Your task to perform on an android device: turn off picture-in-picture Image 0: 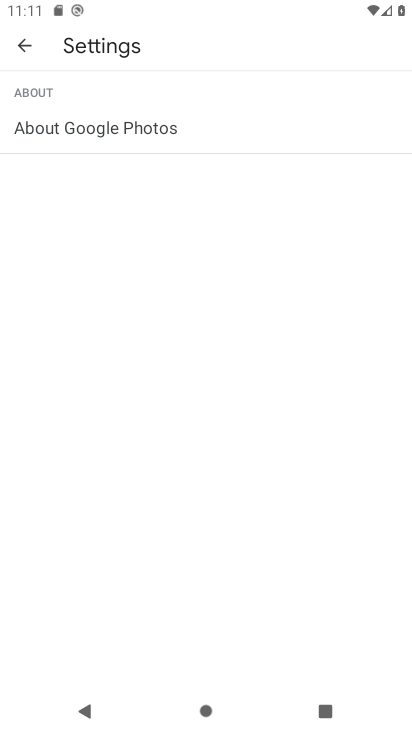
Step 0: press home button
Your task to perform on an android device: turn off picture-in-picture Image 1: 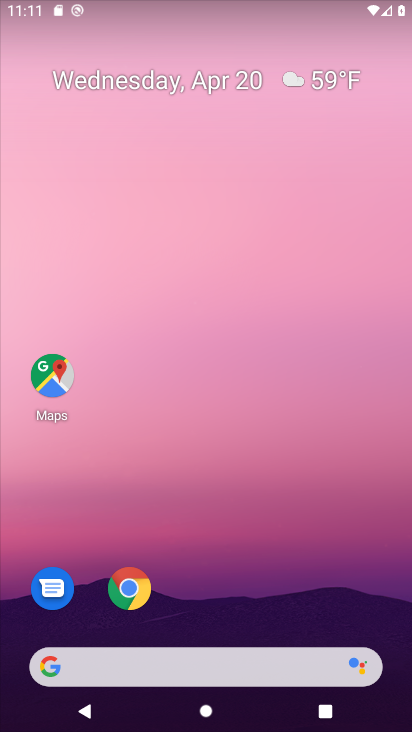
Step 1: drag from (342, 610) to (304, 246)
Your task to perform on an android device: turn off picture-in-picture Image 2: 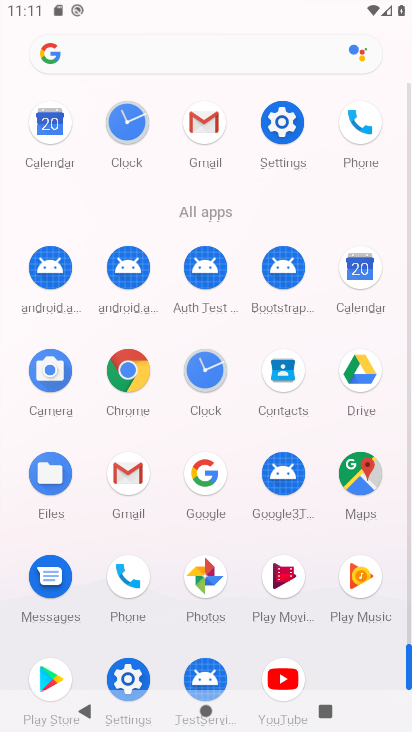
Step 2: click (125, 670)
Your task to perform on an android device: turn off picture-in-picture Image 3: 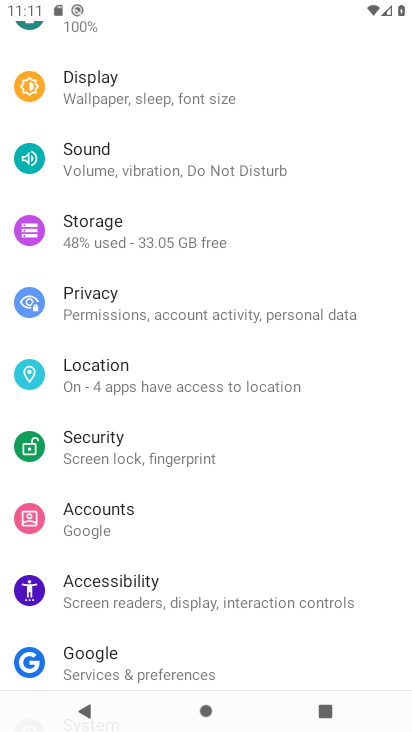
Step 3: drag from (338, 301) to (294, 494)
Your task to perform on an android device: turn off picture-in-picture Image 4: 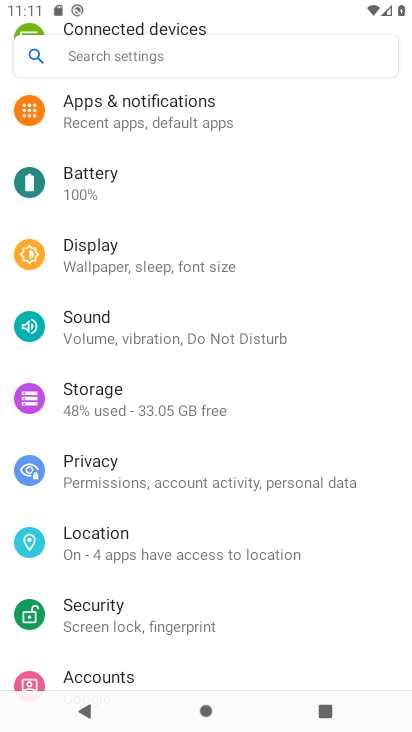
Step 4: drag from (323, 193) to (304, 379)
Your task to perform on an android device: turn off picture-in-picture Image 5: 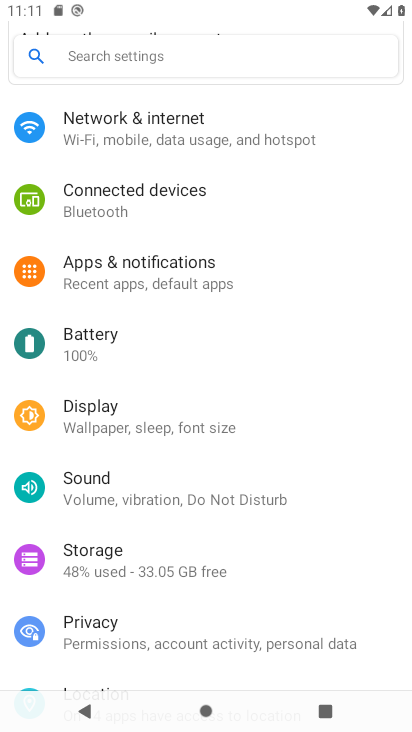
Step 5: click (135, 262)
Your task to perform on an android device: turn off picture-in-picture Image 6: 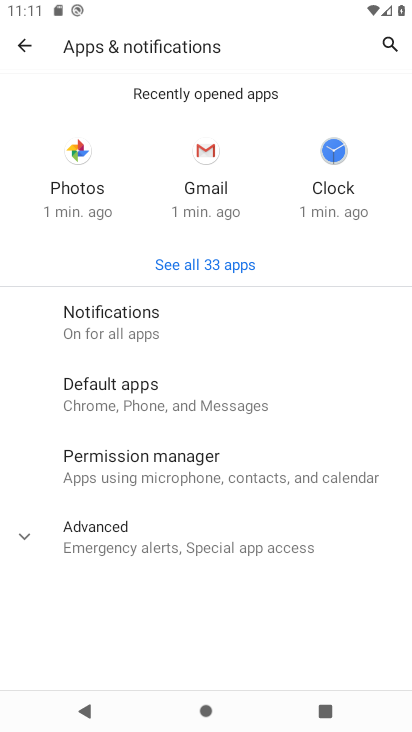
Step 6: click (21, 529)
Your task to perform on an android device: turn off picture-in-picture Image 7: 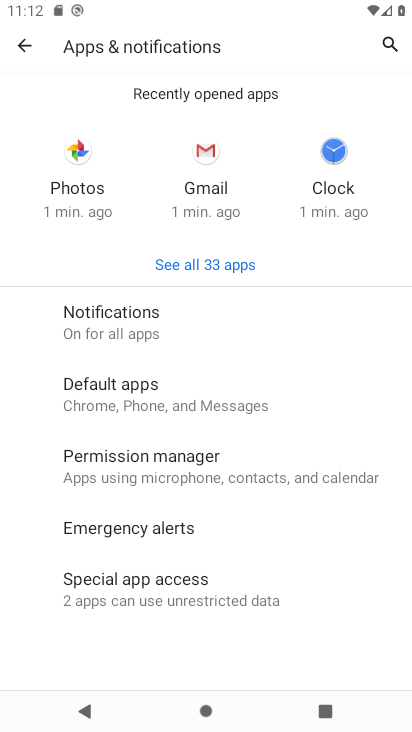
Step 7: click (127, 582)
Your task to perform on an android device: turn off picture-in-picture Image 8: 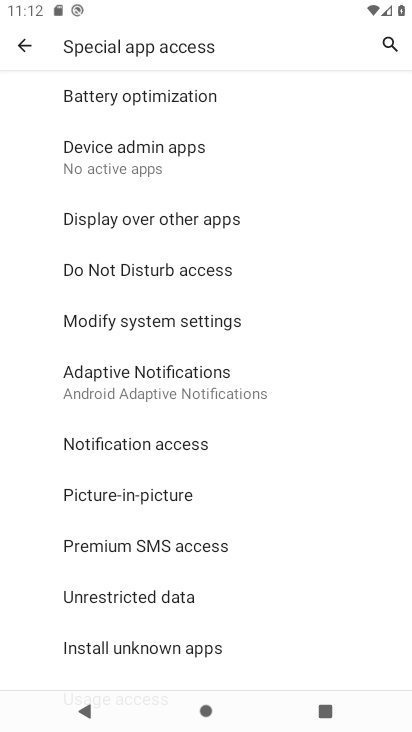
Step 8: click (96, 494)
Your task to perform on an android device: turn off picture-in-picture Image 9: 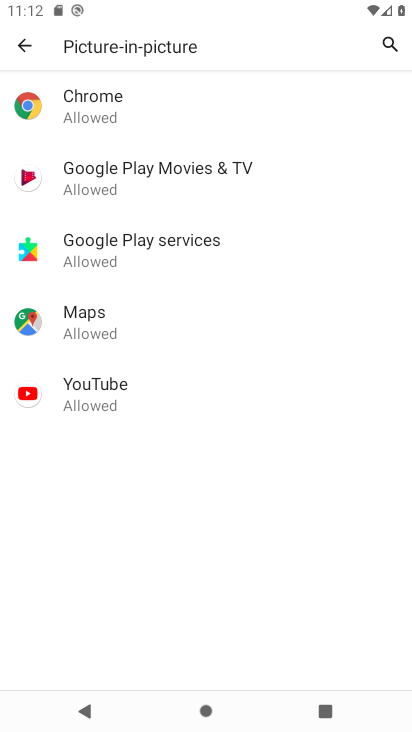
Step 9: click (95, 392)
Your task to perform on an android device: turn off picture-in-picture Image 10: 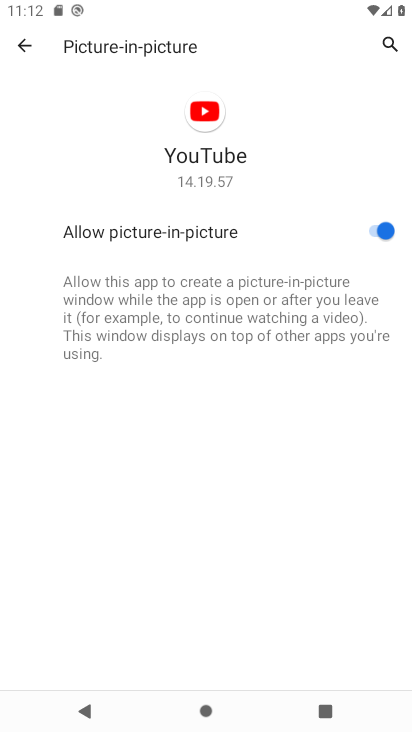
Step 10: click (371, 225)
Your task to perform on an android device: turn off picture-in-picture Image 11: 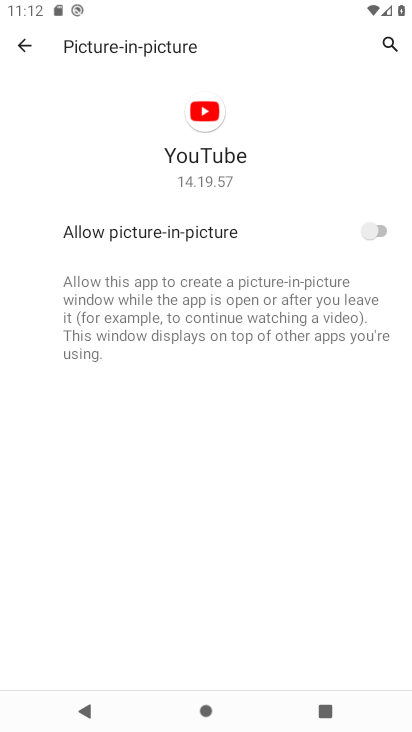
Step 11: task complete